Your task to perform on an android device: Open accessibility settings Image 0: 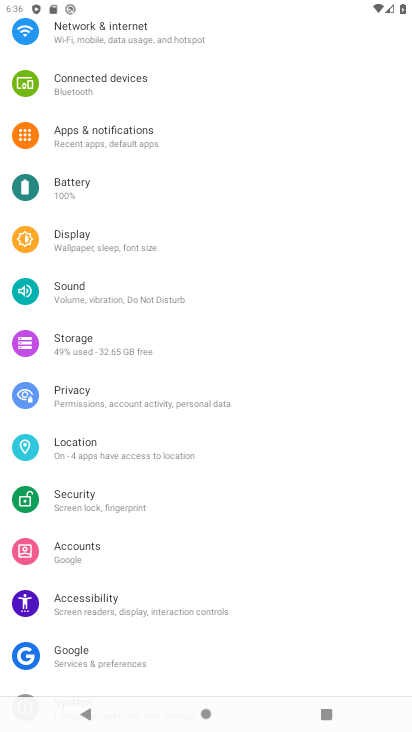
Step 0: click (170, 594)
Your task to perform on an android device: Open accessibility settings Image 1: 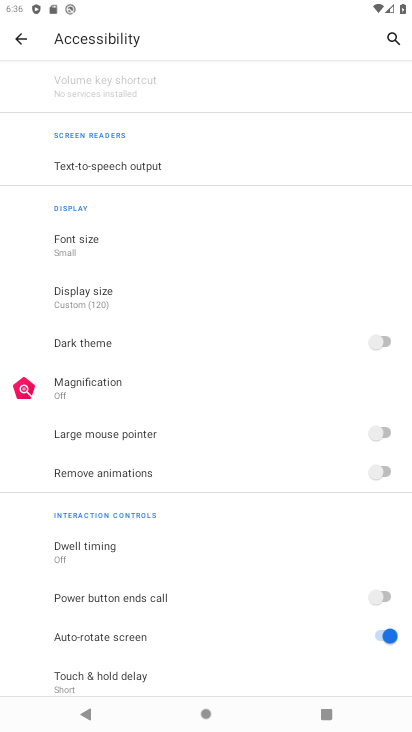
Step 1: task complete